Your task to perform on an android device: turn on improve location accuracy Image 0: 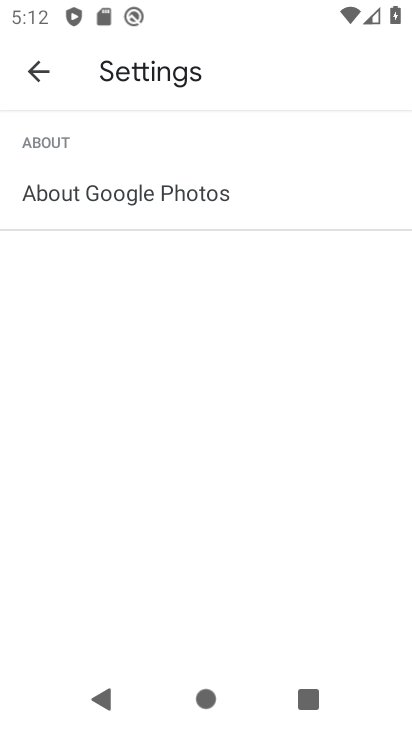
Step 0: press home button
Your task to perform on an android device: turn on improve location accuracy Image 1: 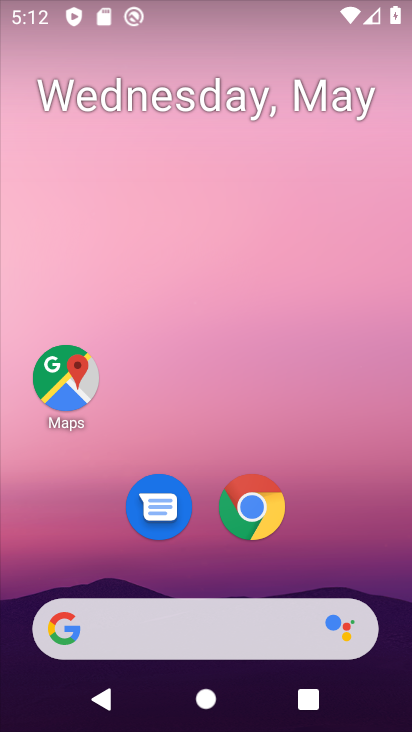
Step 1: drag from (331, 533) to (249, 66)
Your task to perform on an android device: turn on improve location accuracy Image 2: 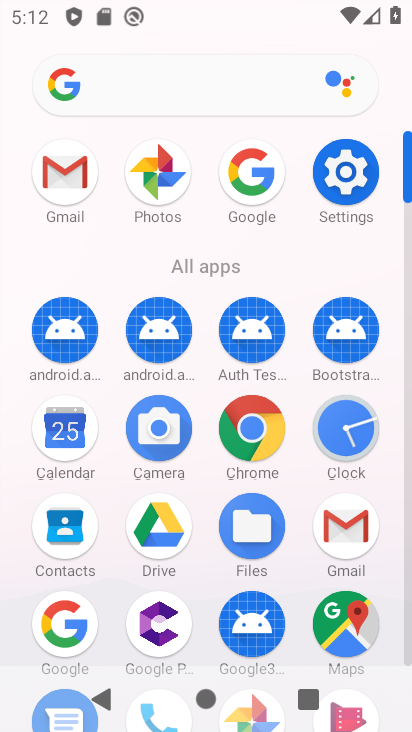
Step 2: click (345, 171)
Your task to perform on an android device: turn on improve location accuracy Image 3: 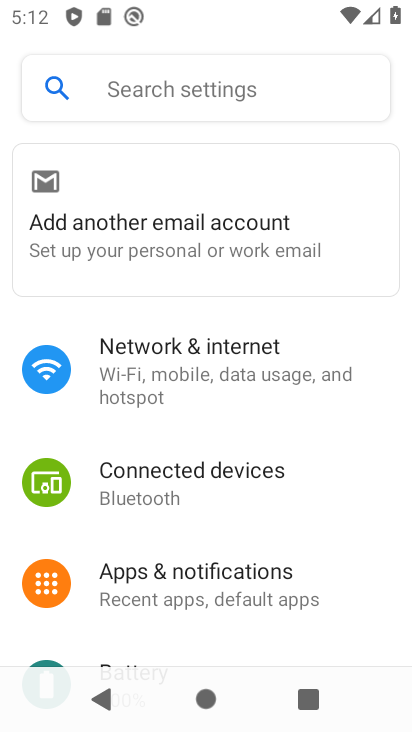
Step 3: drag from (126, 541) to (194, 432)
Your task to perform on an android device: turn on improve location accuracy Image 4: 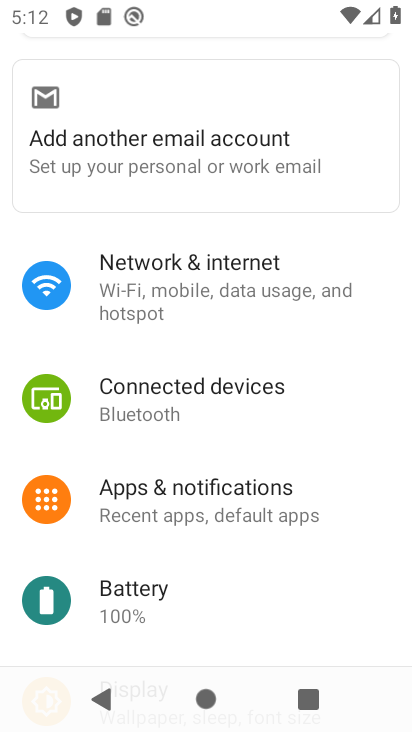
Step 4: drag from (117, 559) to (201, 436)
Your task to perform on an android device: turn on improve location accuracy Image 5: 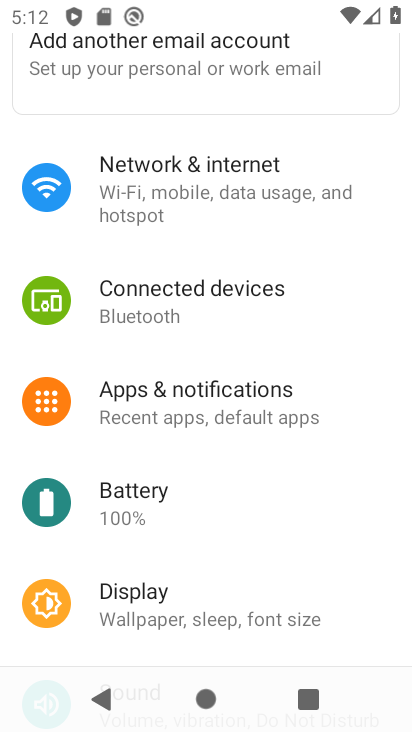
Step 5: drag from (134, 549) to (220, 452)
Your task to perform on an android device: turn on improve location accuracy Image 6: 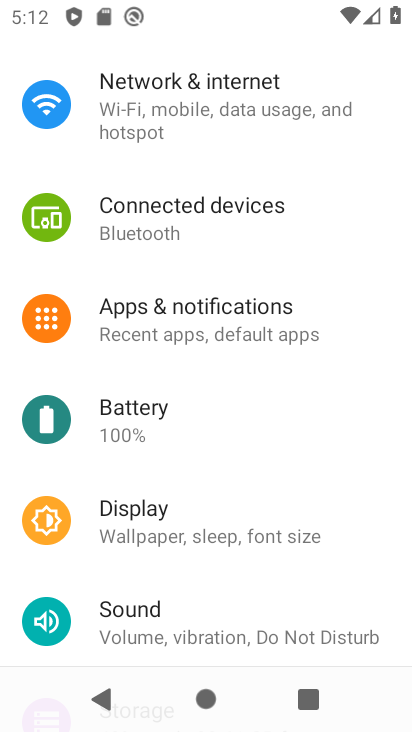
Step 6: drag from (129, 569) to (221, 443)
Your task to perform on an android device: turn on improve location accuracy Image 7: 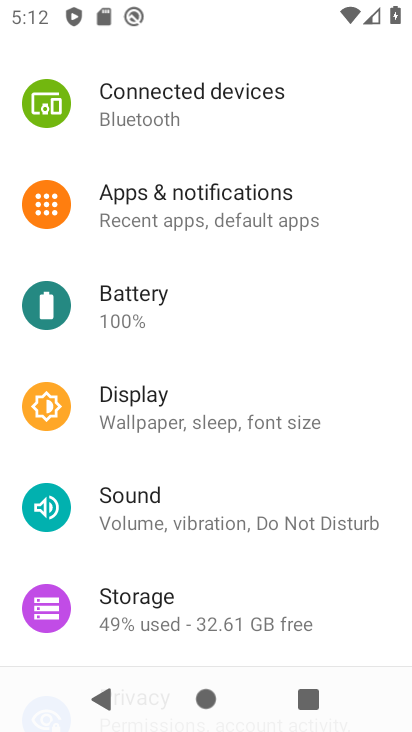
Step 7: drag from (140, 563) to (234, 458)
Your task to perform on an android device: turn on improve location accuracy Image 8: 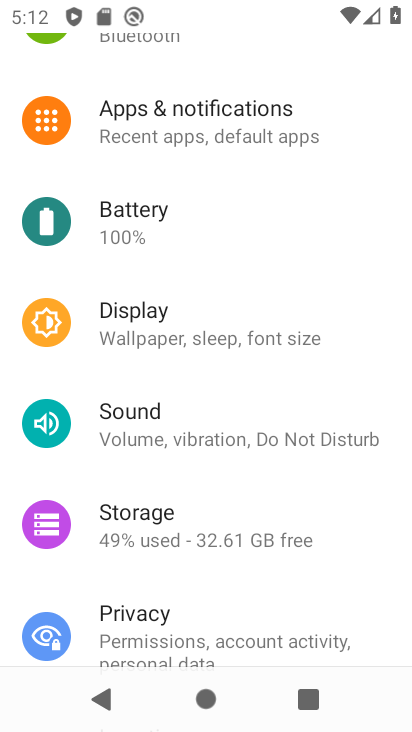
Step 8: drag from (127, 569) to (242, 428)
Your task to perform on an android device: turn on improve location accuracy Image 9: 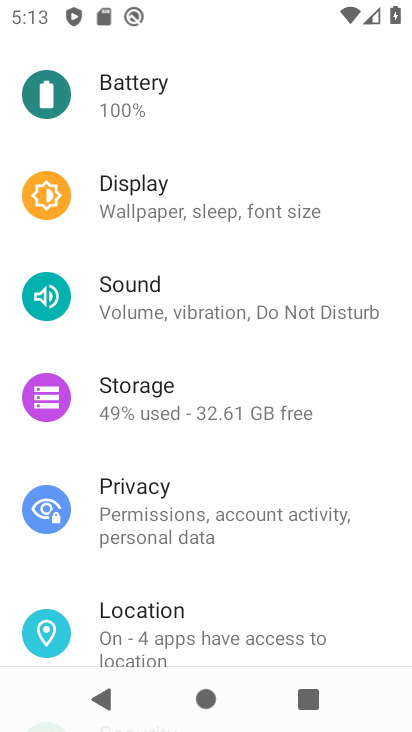
Step 9: drag from (129, 554) to (237, 395)
Your task to perform on an android device: turn on improve location accuracy Image 10: 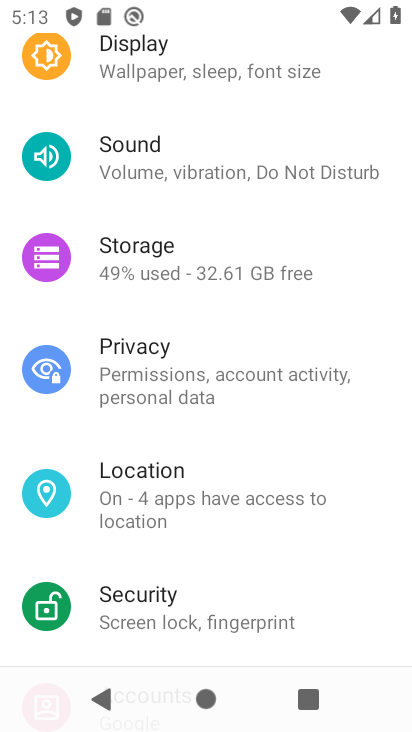
Step 10: click (147, 478)
Your task to perform on an android device: turn on improve location accuracy Image 11: 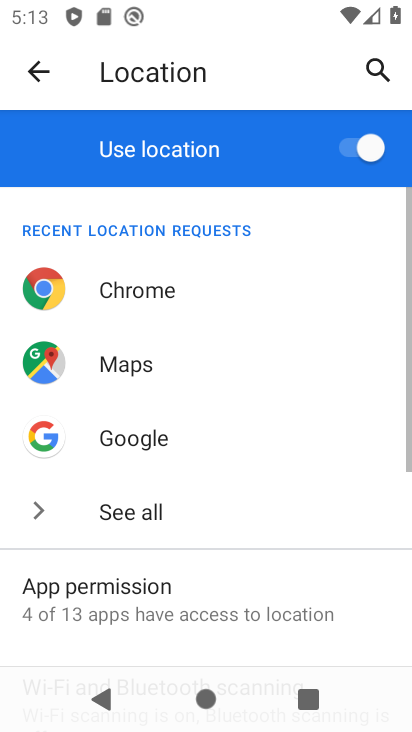
Step 11: drag from (160, 641) to (265, 498)
Your task to perform on an android device: turn on improve location accuracy Image 12: 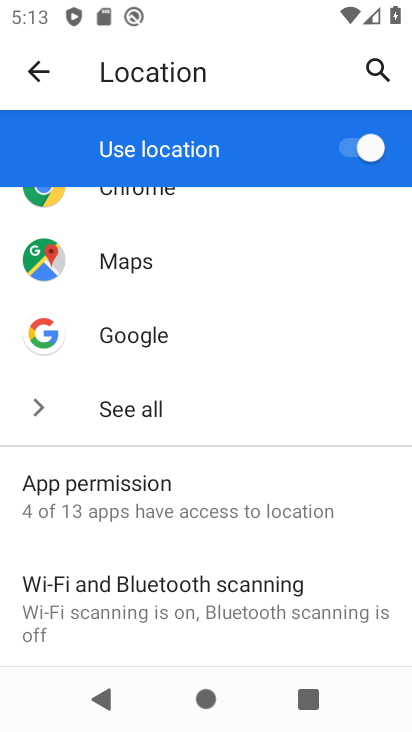
Step 12: drag from (178, 628) to (278, 500)
Your task to perform on an android device: turn on improve location accuracy Image 13: 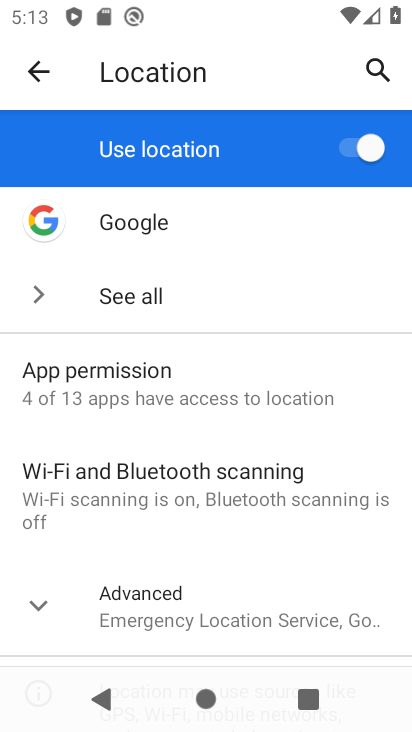
Step 13: click (200, 611)
Your task to perform on an android device: turn on improve location accuracy Image 14: 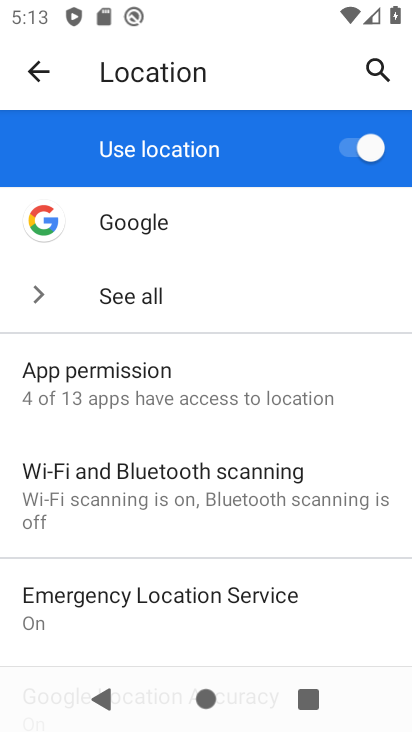
Step 14: drag from (201, 620) to (301, 468)
Your task to perform on an android device: turn on improve location accuracy Image 15: 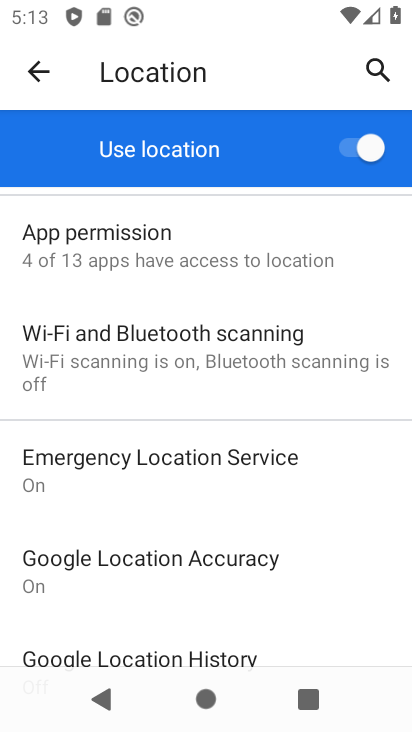
Step 15: click (184, 545)
Your task to perform on an android device: turn on improve location accuracy Image 16: 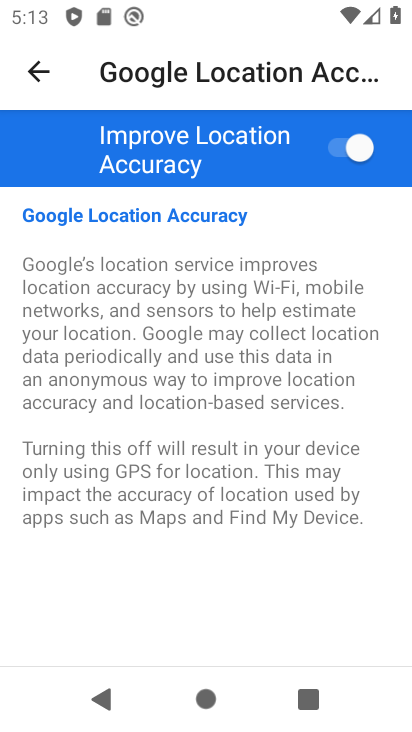
Step 16: task complete